Your task to perform on an android device: Open calendar and show me the second week of next month Image 0: 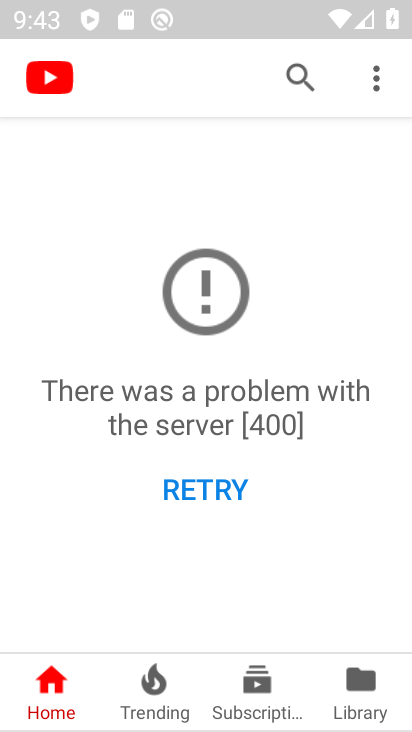
Step 0: press home button
Your task to perform on an android device: Open calendar and show me the second week of next month Image 1: 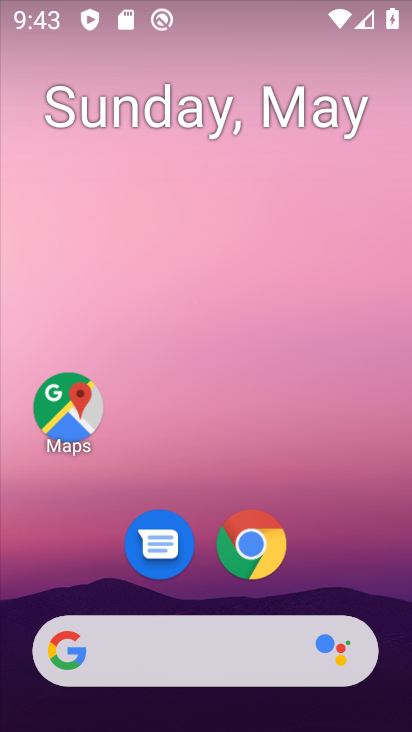
Step 1: drag from (346, 543) to (330, 0)
Your task to perform on an android device: Open calendar and show me the second week of next month Image 2: 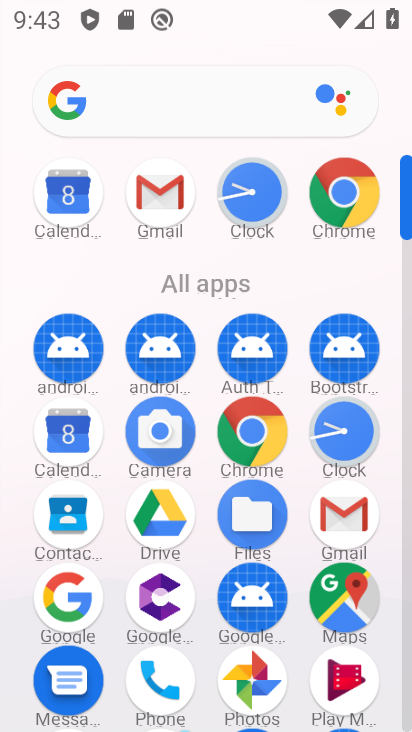
Step 2: click (81, 434)
Your task to perform on an android device: Open calendar and show me the second week of next month Image 3: 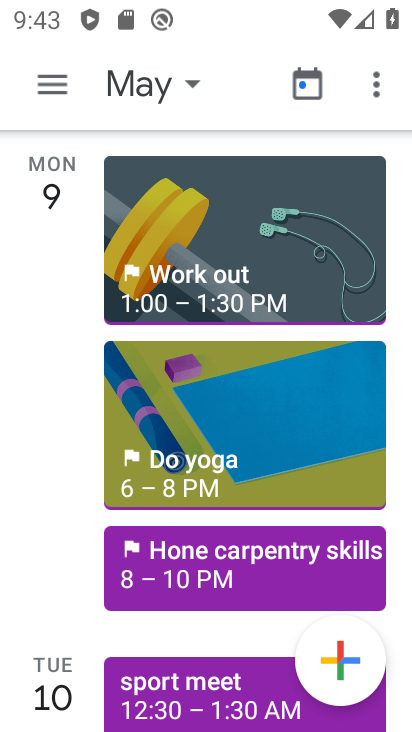
Step 3: click (200, 84)
Your task to perform on an android device: Open calendar and show me the second week of next month Image 4: 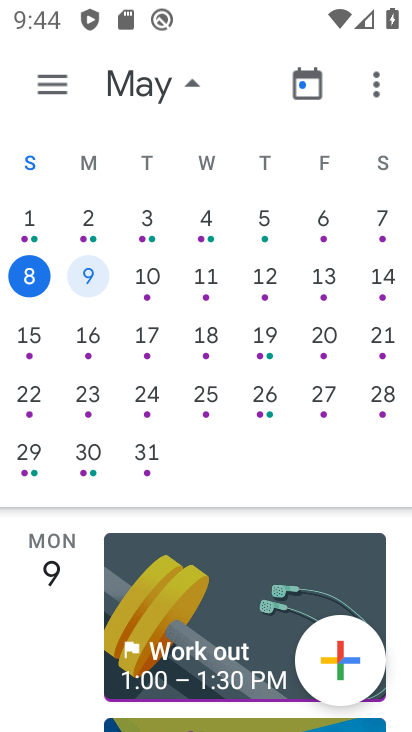
Step 4: drag from (295, 302) to (21, 183)
Your task to perform on an android device: Open calendar and show me the second week of next month Image 5: 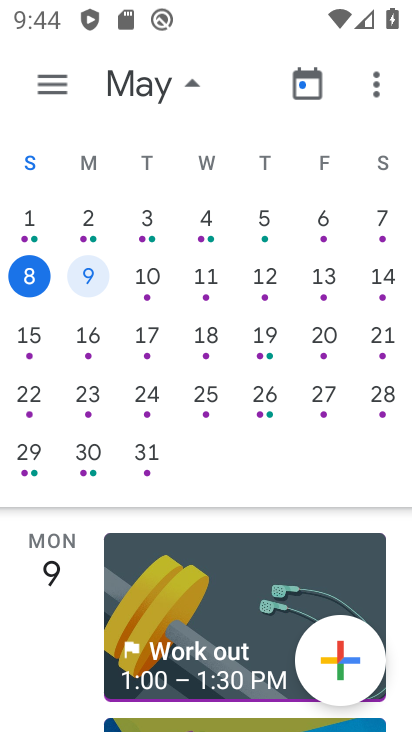
Step 5: drag from (403, 295) to (142, 246)
Your task to perform on an android device: Open calendar and show me the second week of next month Image 6: 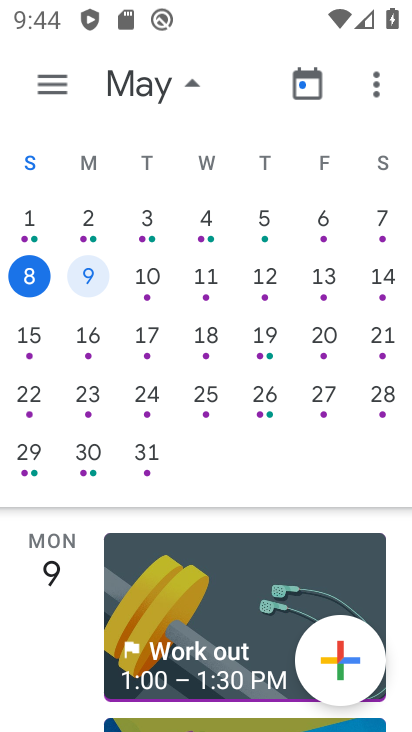
Step 6: drag from (402, 258) to (25, 236)
Your task to perform on an android device: Open calendar and show me the second week of next month Image 7: 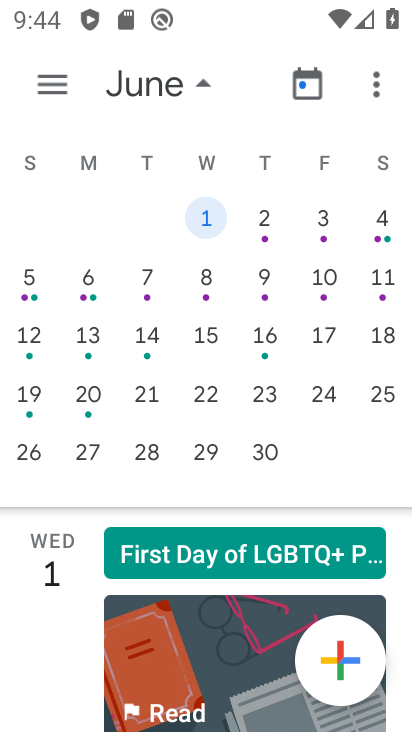
Step 7: click (201, 275)
Your task to perform on an android device: Open calendar and show me the second week of next month Image 8: 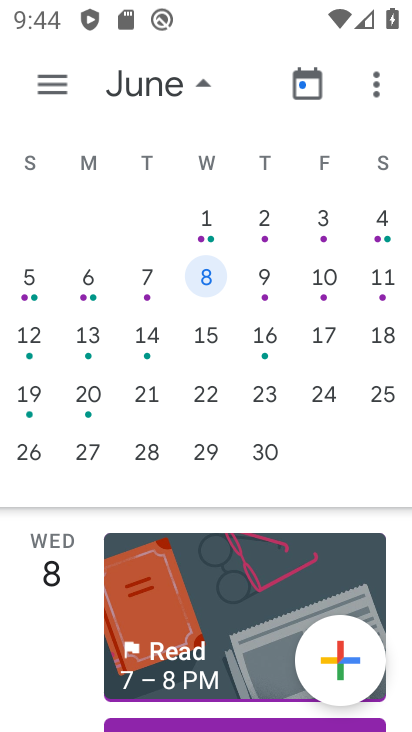
Step 8: task complete